Your task to perform on an android device: set the timer Image 0: 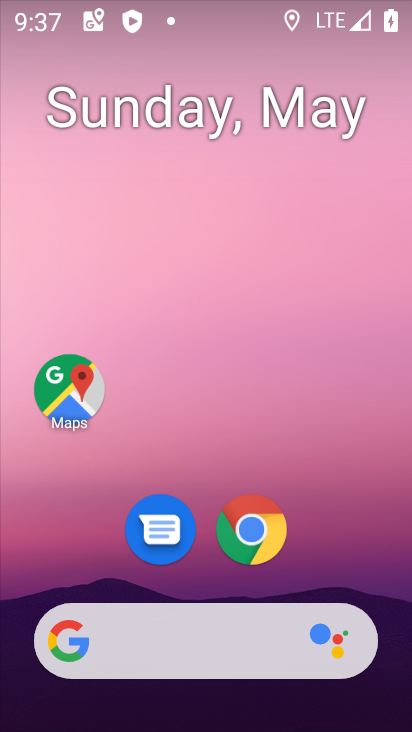
Step 0: drag from (383, 553) to (313, 16)
Your task to perform on an android device: set the timer Image 1: 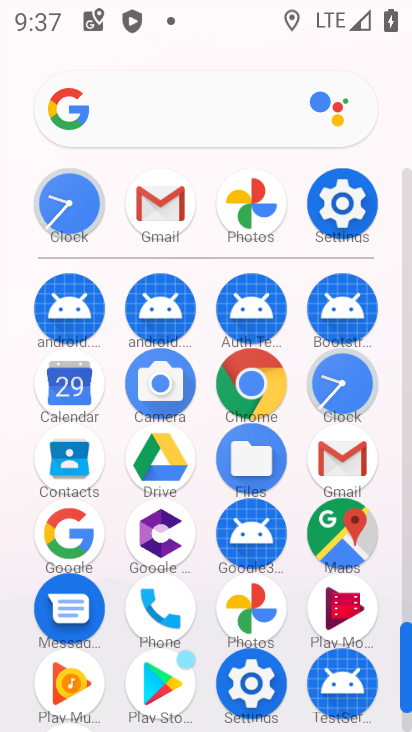
Step 1: click (338, 193)
Your task to perform on an android device: set the timer Image 2: 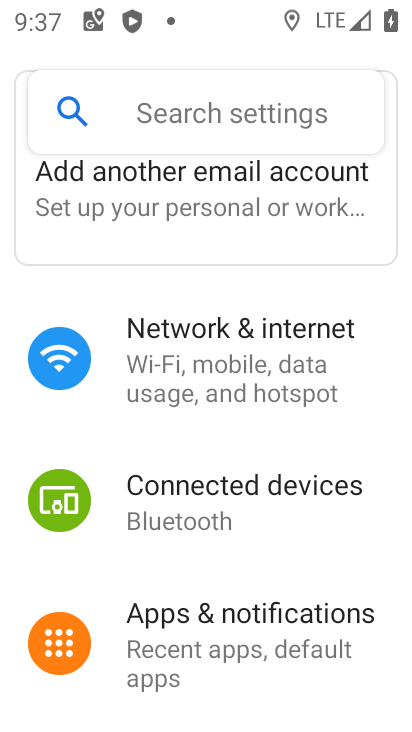
Step 2: press home button
Your task to perform on an android device: set the timer Image 3: 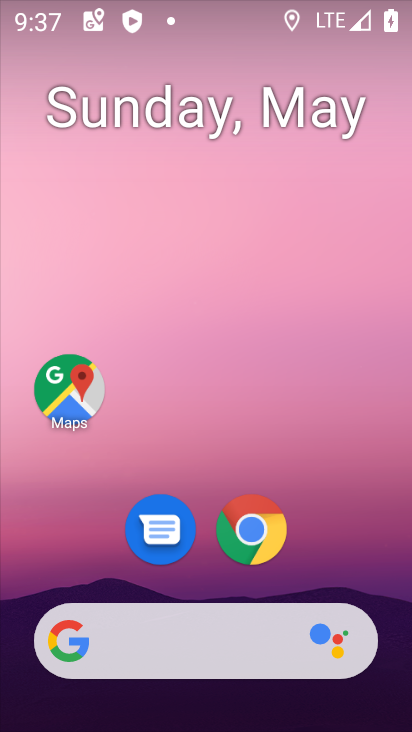
Step 3: drag from (346, 540) to (272, 194)
Your task to perform on an android device: set the timer Image 4: 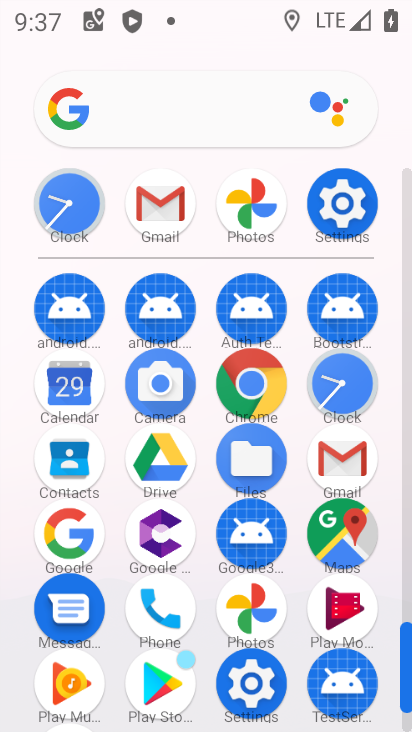
Step 4: click (65, 232)
Your task to perform on an android device: set the timer Image 5: 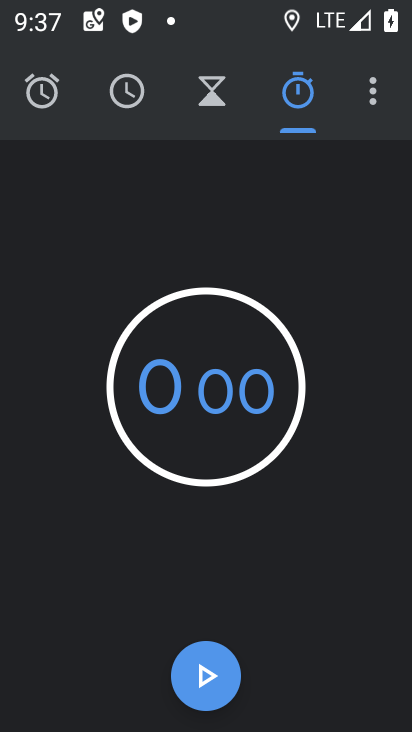
Step 5: task complete